Your task to perform on an android device: turn off improve location accuracy Image 0: 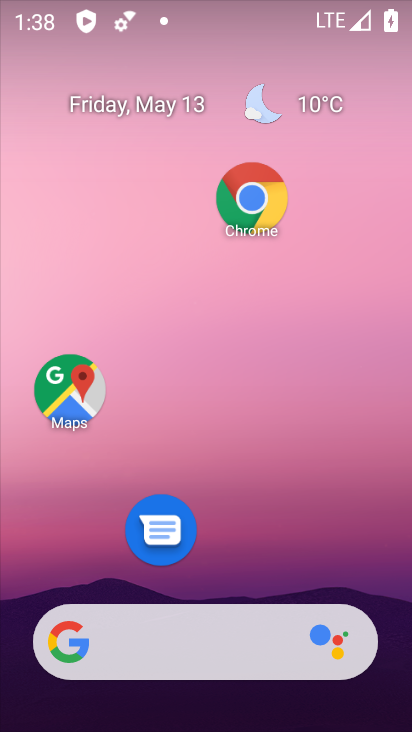
Step 0: drag from (201, 574) to (111, 12)
Your task to perform on an android device: turn off improve location accuracy Image 1: 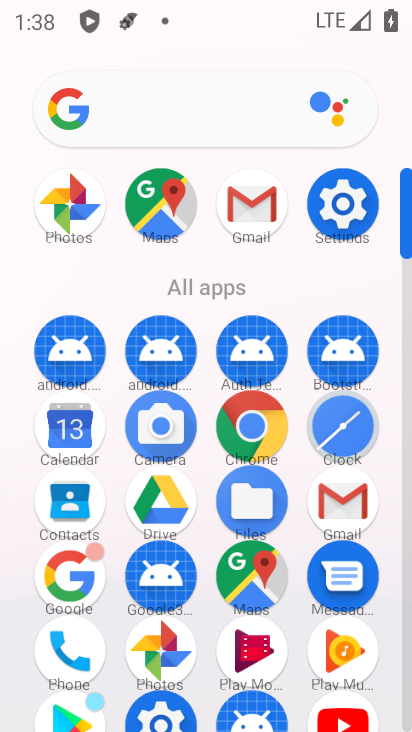
Step 1: click (335, 214)
Your task to perform on an android device: turn off improve location accuracy Image 2: 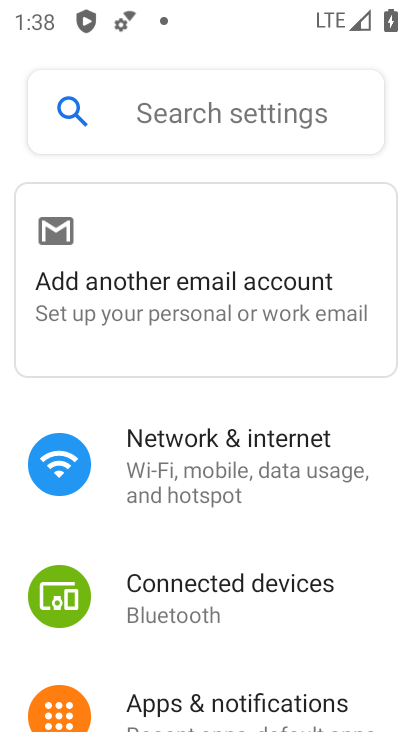
Step 2: drag from (201, 616) to (137, 166)
Your task to perform on an android device: turn off improve location accuracy Image 3: 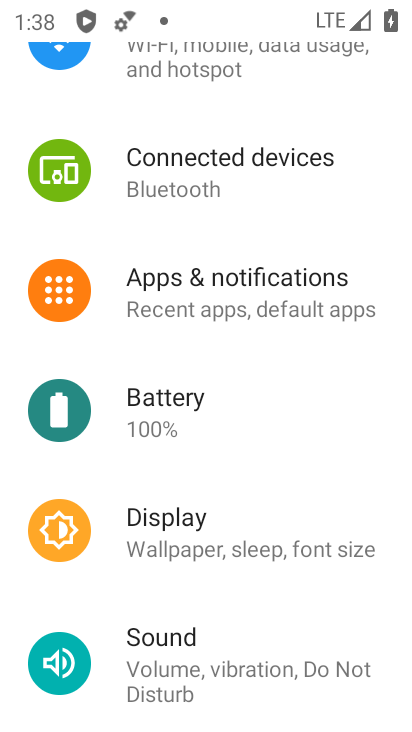
Step 3: drag from (181, 578) to (143, 227)
Your task to perform on an android device: turn off improve location accuracy Image 4: 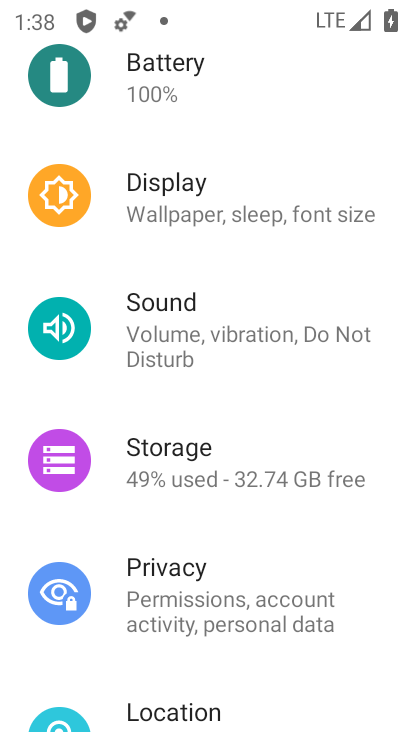
Step 4: click (188, 705)
Your task to perform on an android device: turn off improve location accuracy Image 5: 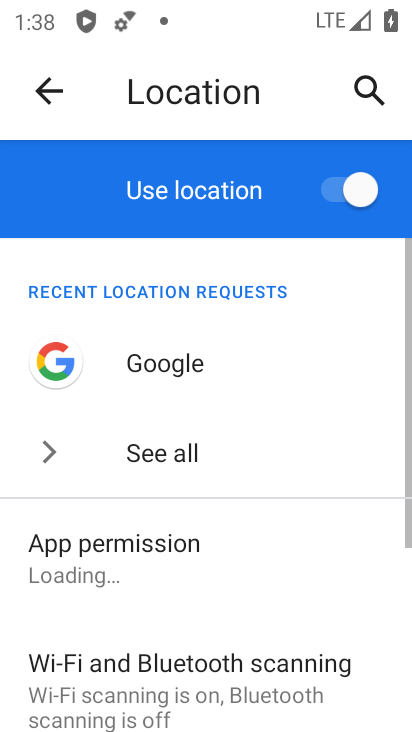
Step 5: drag from (187, 668) to (166, 266)
Your task to perform on an android device: turn off improve location accuracy Image 6: 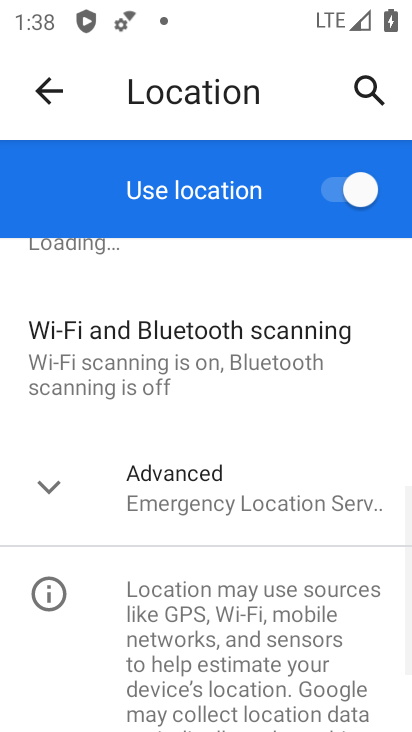
Step 6: click (178, 473)
Your task to perform on an android device: turn off improve location accuracy Image 7: 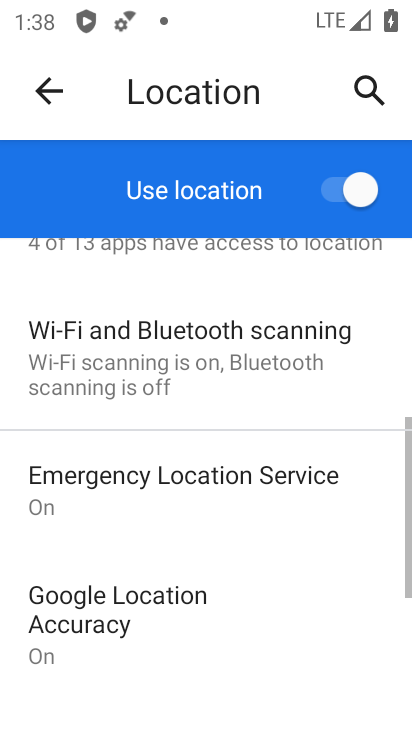
Step 7: click (175, 603)
Your task to perform on an android device: turn off improve location accuracy Image 8: 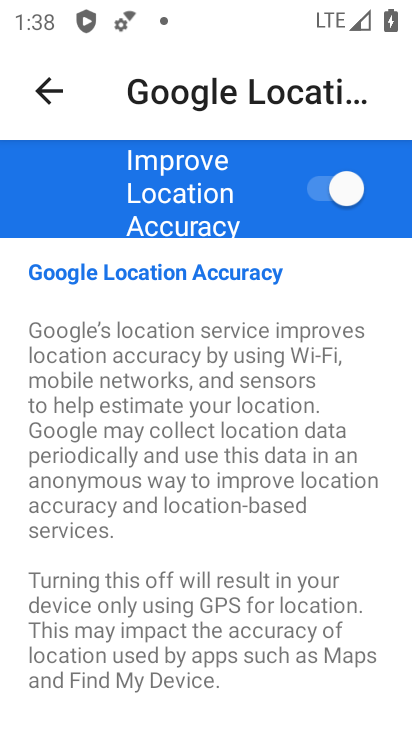
Step 8: click (327, 170)
Your task to perform on an android device: turn off improve location accuracy Image 9: 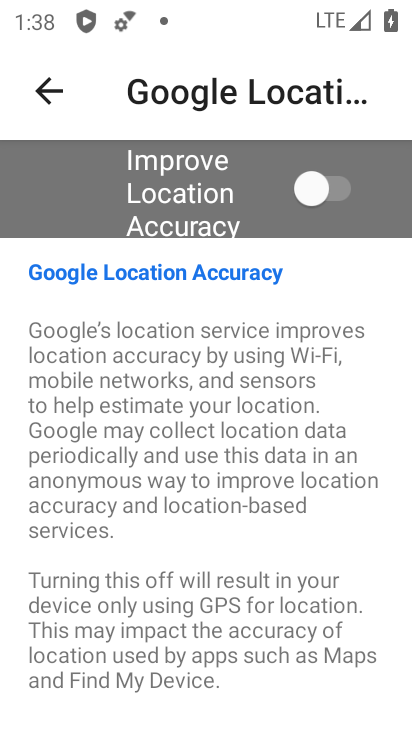
Step 9: task complete